Your task to perform on an android device: toggle airplane mode Image 0: 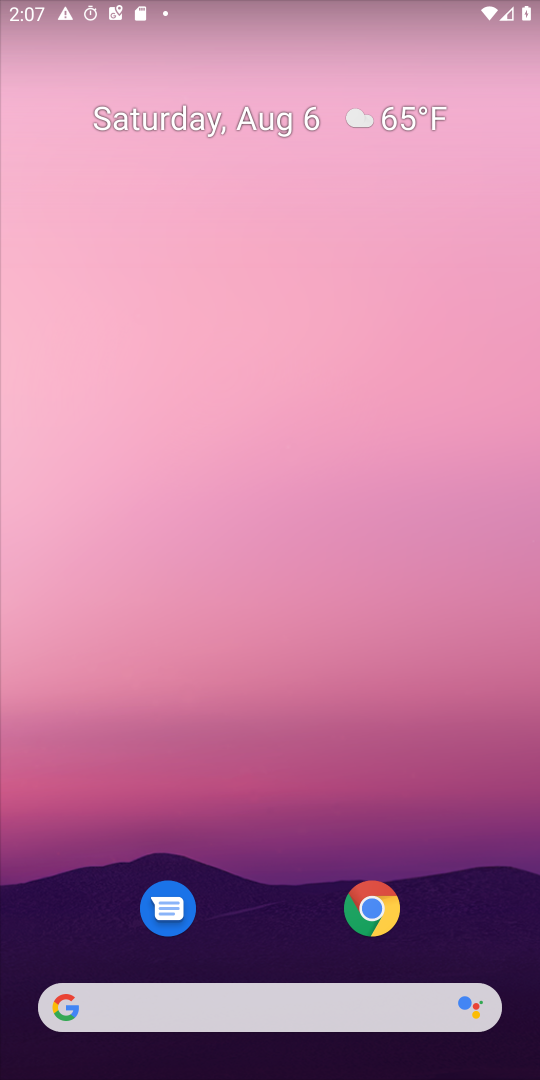
Step 0: drag from (230, 831) to (230, 153)
Your task to perform on an android device: toggle airplane mode Image 1: 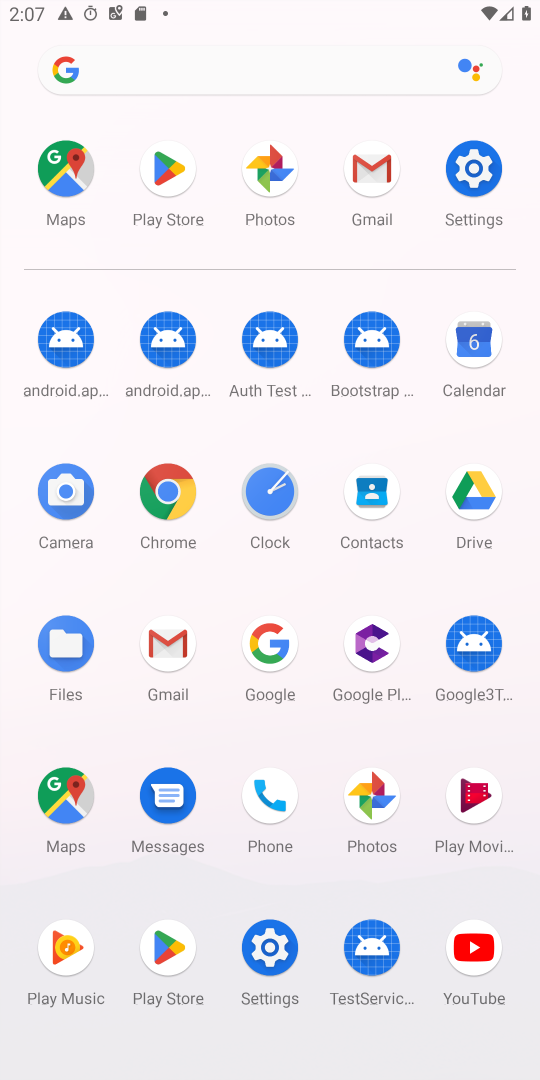
Step 1: click (486, 170)
Your task to perform on an android device: toggle airplane mode Image 2: 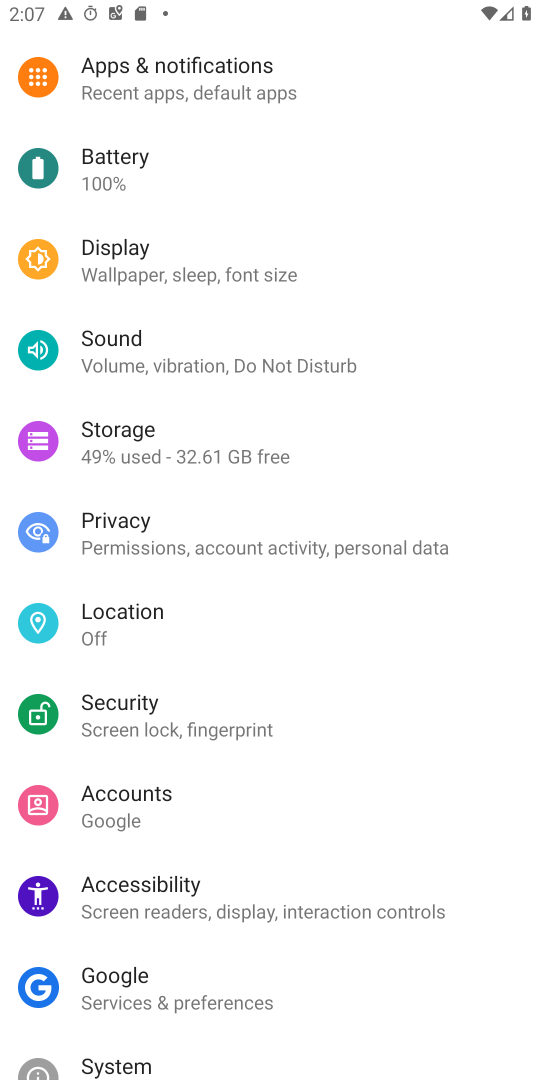
Step 2: drag from (178, 287) to (213, 464)
Your task to perform on an android device: toggle airplane mode Image 3: 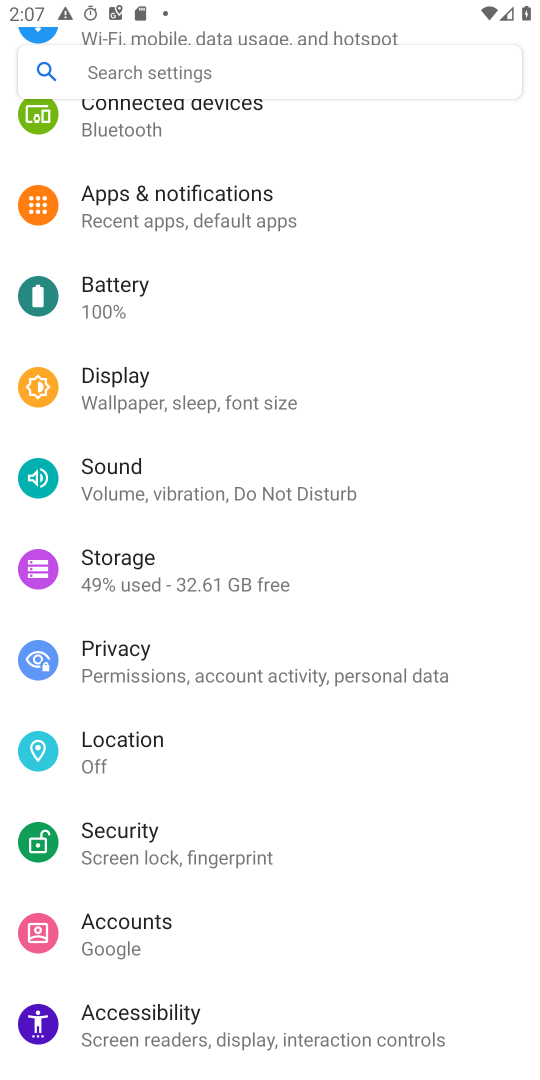
Step 3: drag from (255, 332) to (275, 440)
Your task to perform on an android device: toggle airplane mode Image 4: 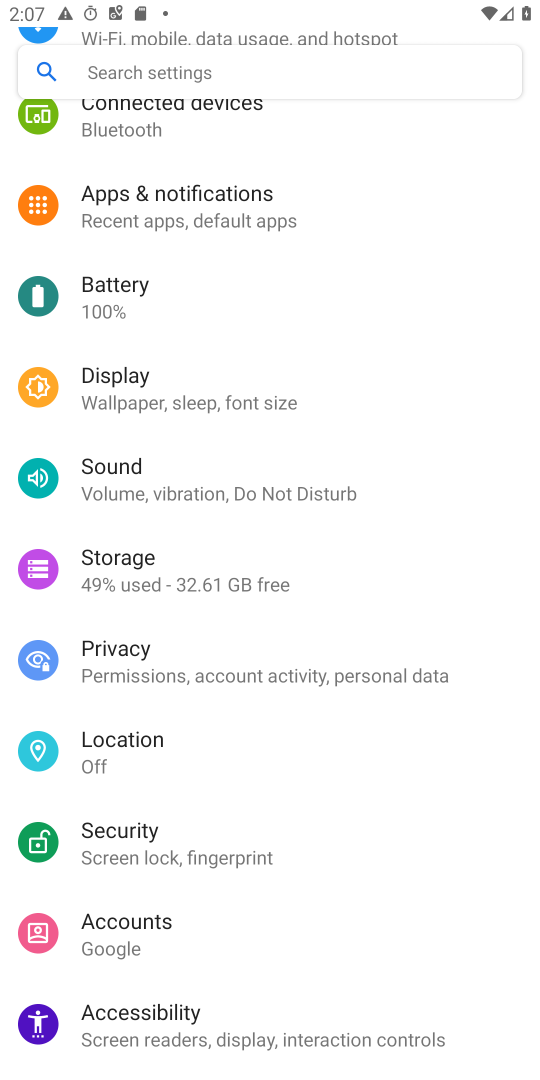
Step 4: drag from (269, 211) to (300, 699)
Your task to perform on an android device: toggle airplane mode Image 5: 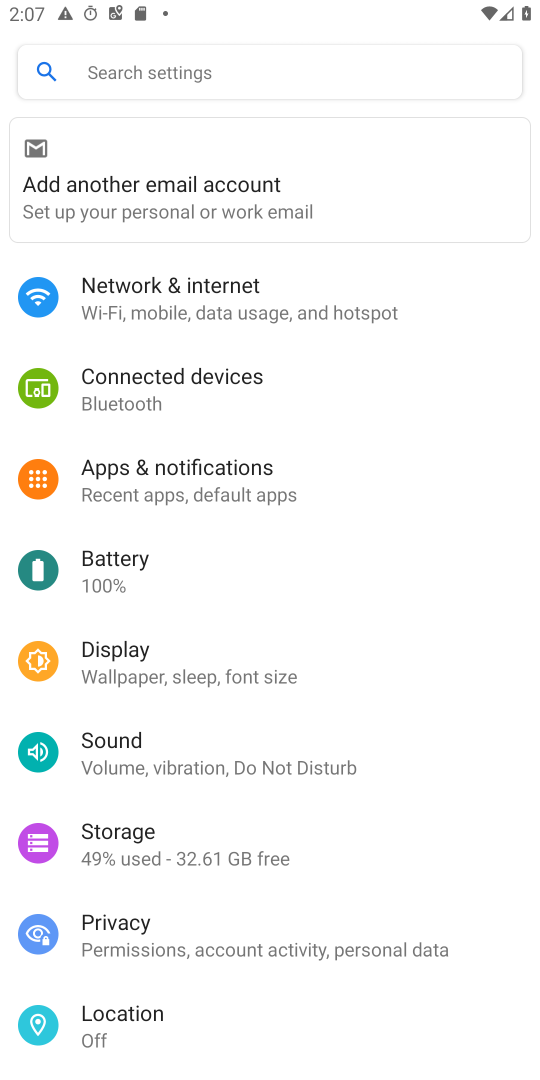
Step 5: click (251, 293)
Your task to perform on an android device: toggle airplane mode Image 6: 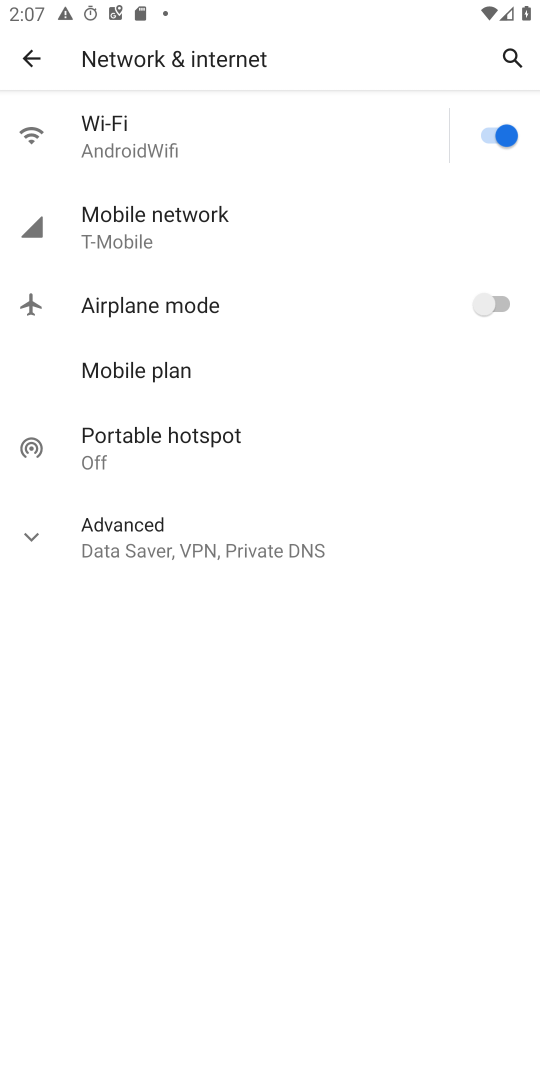
Step 6: click (493, 311)
Your task to perform on an android device: toggle airplane mode Image 7: 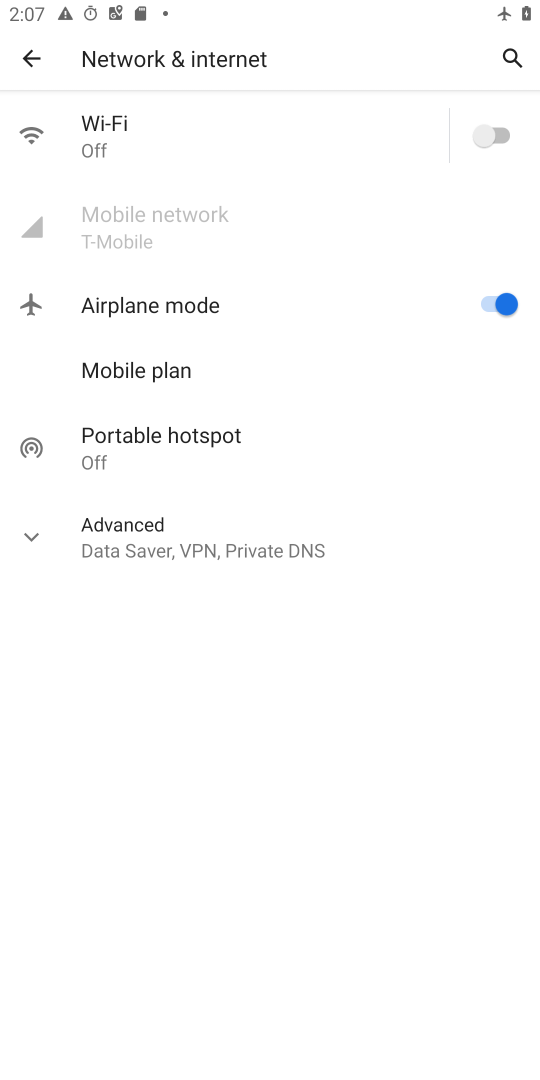
Step 7: task complete